Your task to perform on an android device: Go to battery settings Image 0: 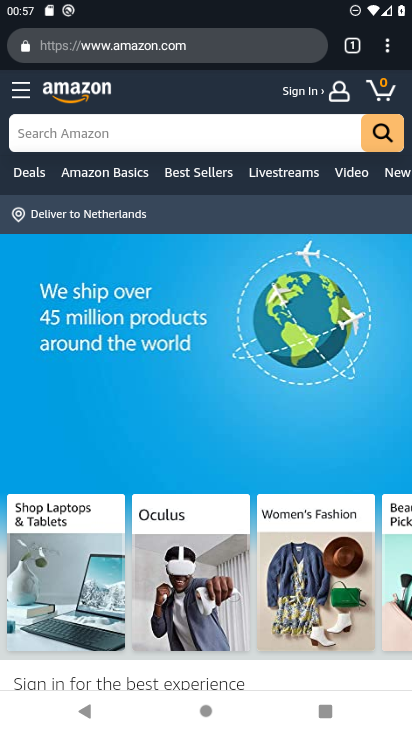
Step 0: press home button
Your task to perform on an android device: Go to battery settings Image 1: 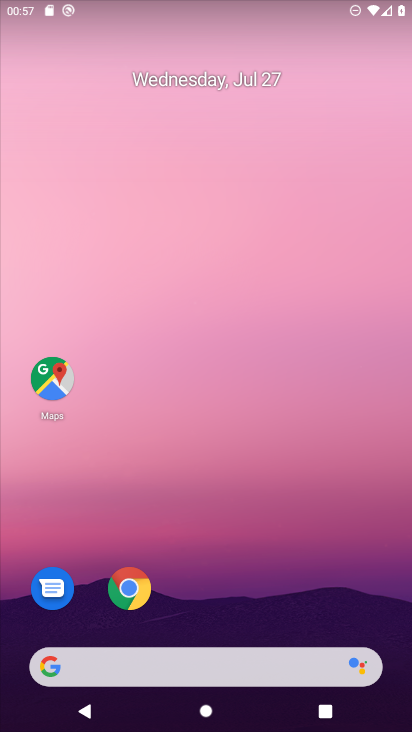
Step 1: drag from (18, 677) to (194, 97)
Your task to perform on an android device: Go to battery settings Image 2: 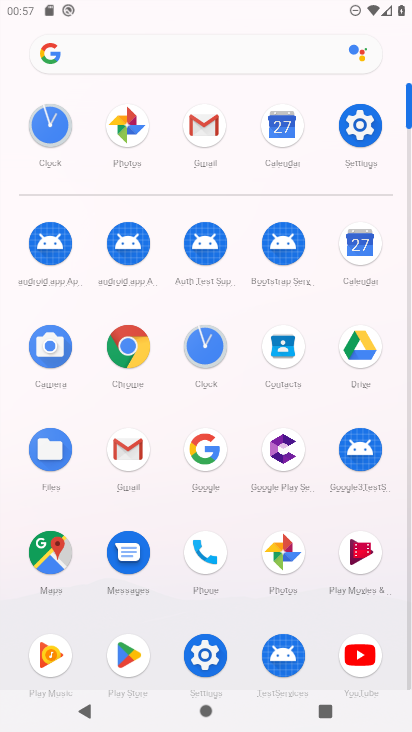
Step 2: click (237, 642)
Your task to perform on an android device: Go to battery settings Image 3: 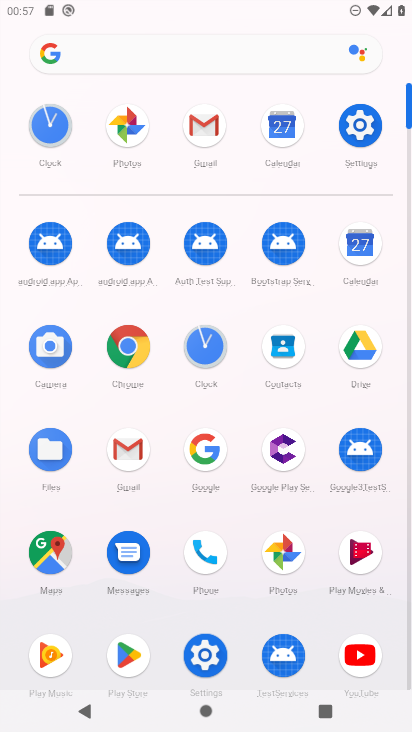
Step 3: click (218, 660)
Your task to perform on an android device: Go to battery settings Image 4: 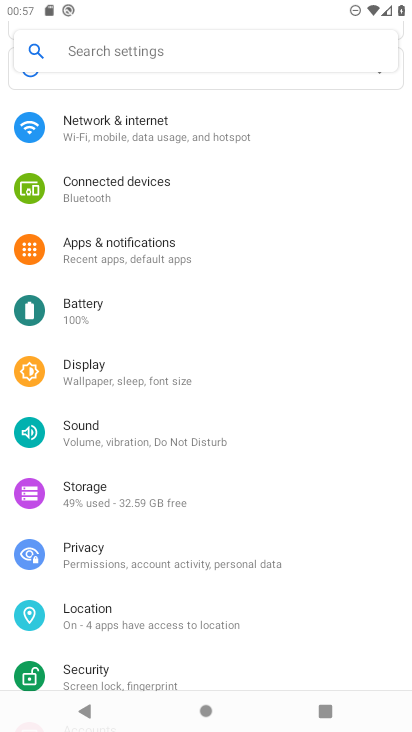
Step 4: click (111, 290)
Your task to perform on an android device: Go to battery settings Image 5: 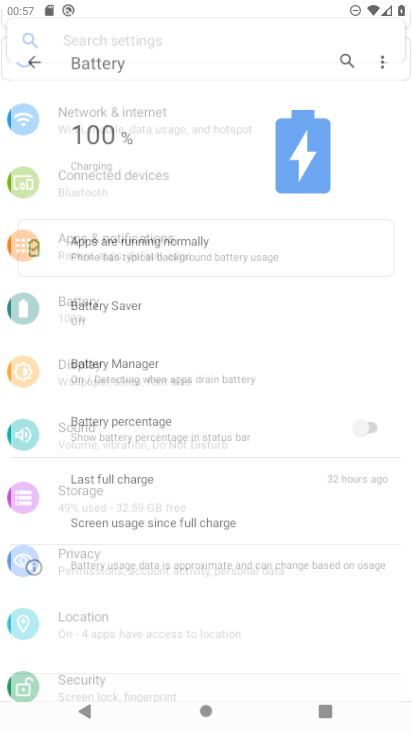
Step 5: click (91, 312)
Your task to perform on an android device: Go to battery settings Image 6: 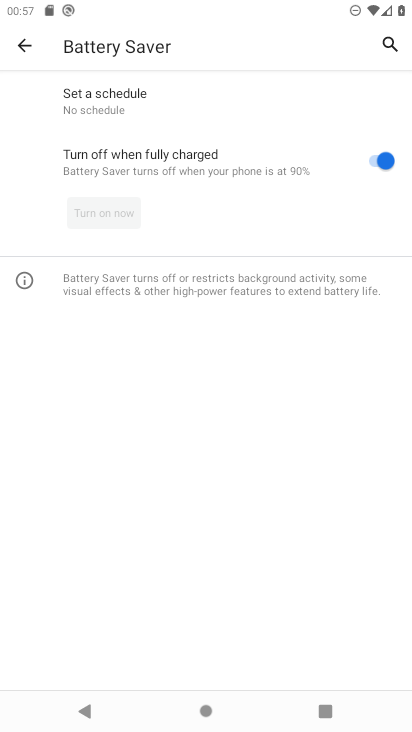
Step 6: click (25, 45)
Your task to perform on an android device: Go to battery settings Image 7: 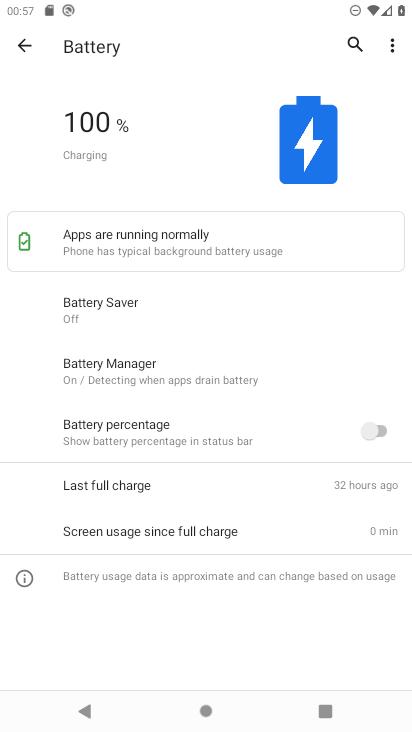
Step 7: task complete